Your task to perform on an android device: Open the calendar and show me this week's events? Image 0: 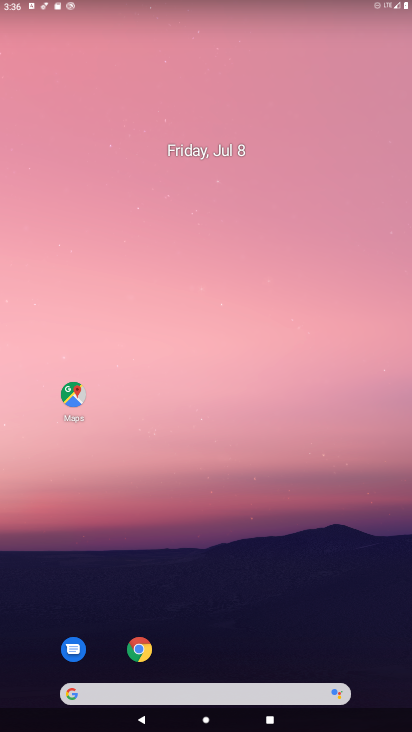
Step 0: drag from (374, 643) to (321, 114)
Your task to perform on an android device: Open the calendar and show me this week's events? Image 1: 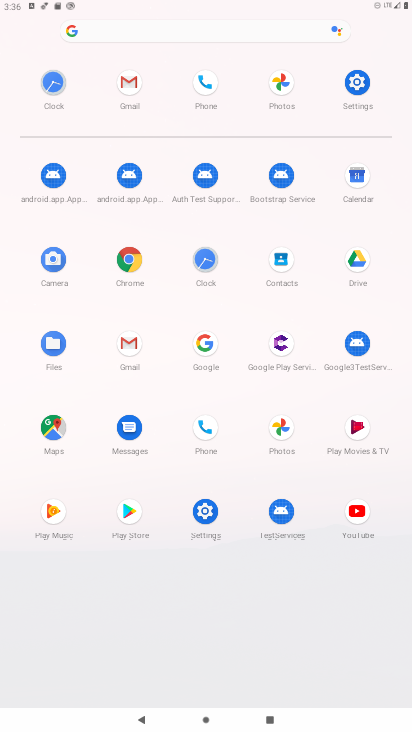
Step 1: click (357, 174)
Your task to perform on an android device: Open the calendar and show me this week's events? Image 2: 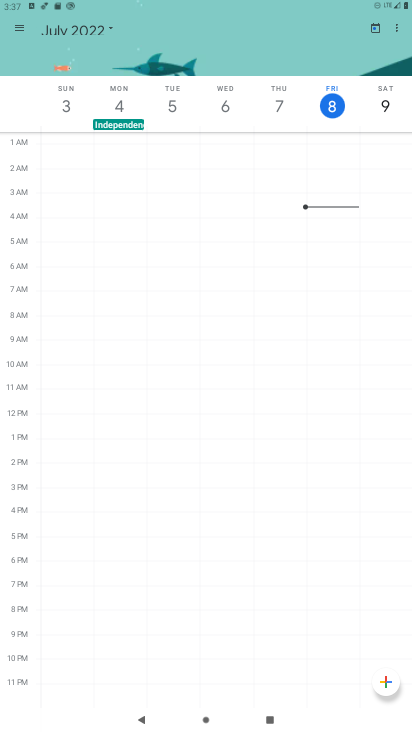
Step 2: click (17, 27)
Your task to perform on an android device: Open the calendar and show me this week's events? Image 3: 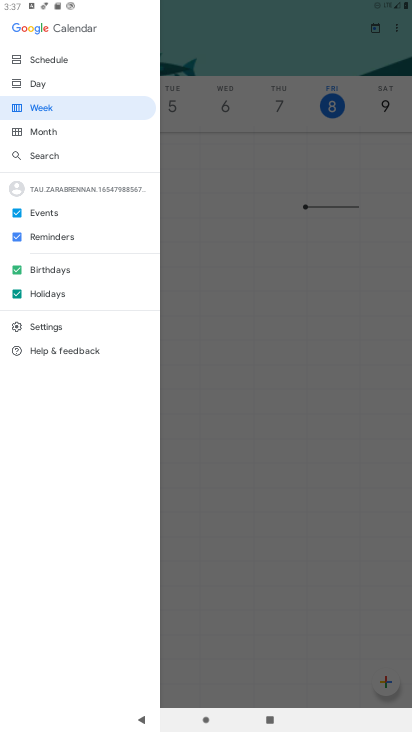
Step 3: click (60, 104)
Your task to perform on an android device: Open the calendar and show me this week's events? Image 4: 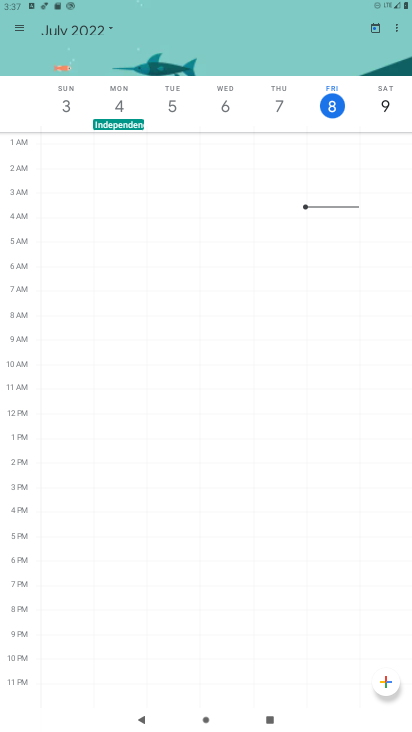
Step 4: task complete